Your task to perform on an android device: Open Google Chrome and open the bookmarks view Image 0: 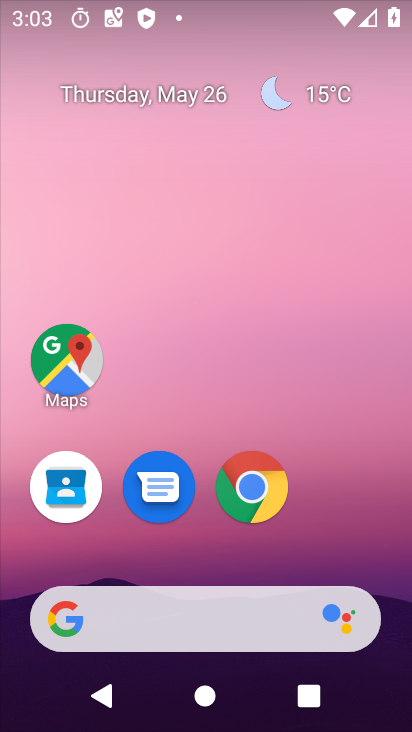
Step 0: click (234, 475)
Your task to perform on an android device: Open Google Chrome and open the bookmarks view Image 1: 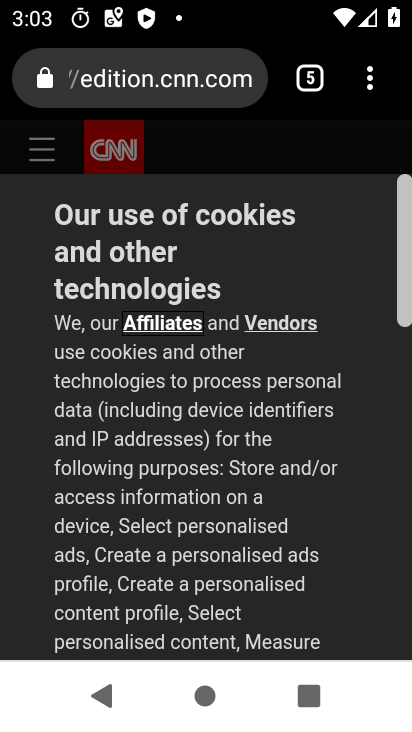
Step 1: click (300, 85)
Your task to perform on an android device: Open Google Chrome and open the bookmarks view Image 2: 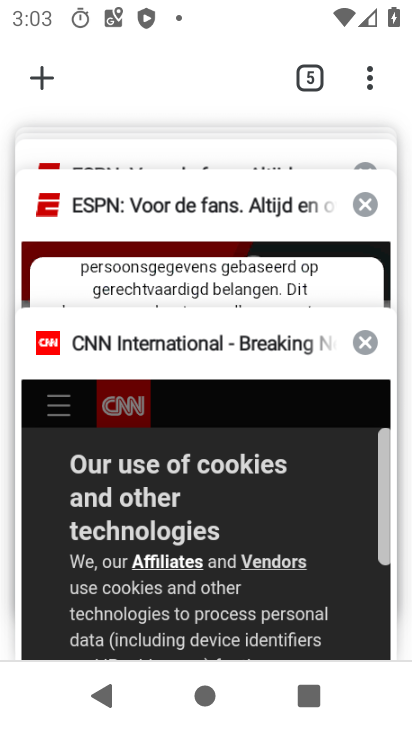
Step 2: click (370, 75)
Your task to perform on an android device: Open Google Chrome and open the bookmarks view Image 3: 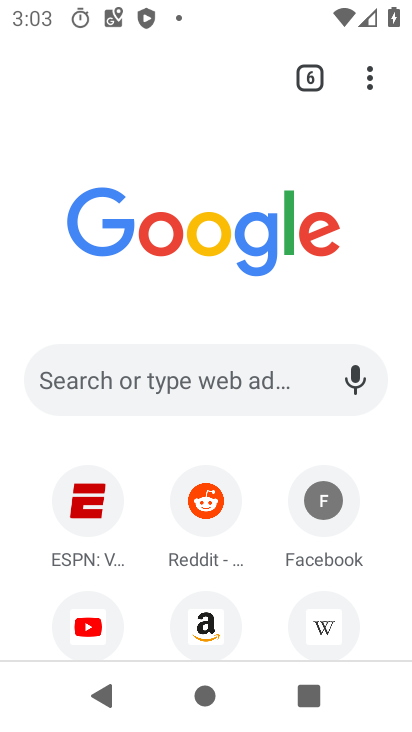
Step 3: click (370, 75)
Your task to perform on an android device: Open Google Chrome and open the bookmarks view Image 4: 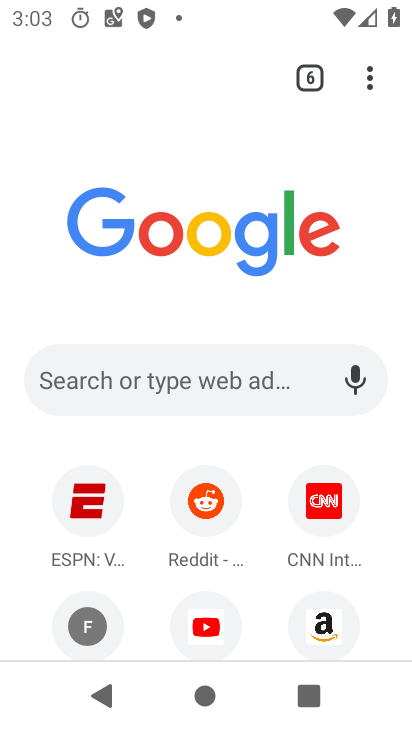
Step 4: click (155, 295)
Your task to perform on an android device: Open Google Chrome and open the bookmarks view Image 5: 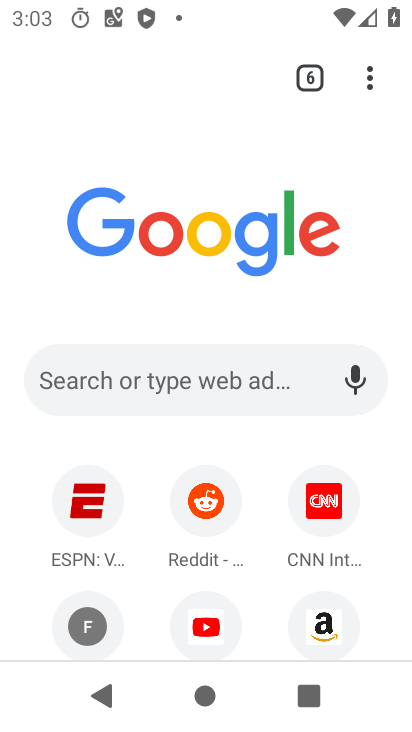
Step 5: task complete